Your task to perform on an android device: turn on improve location accuracy Image 0: 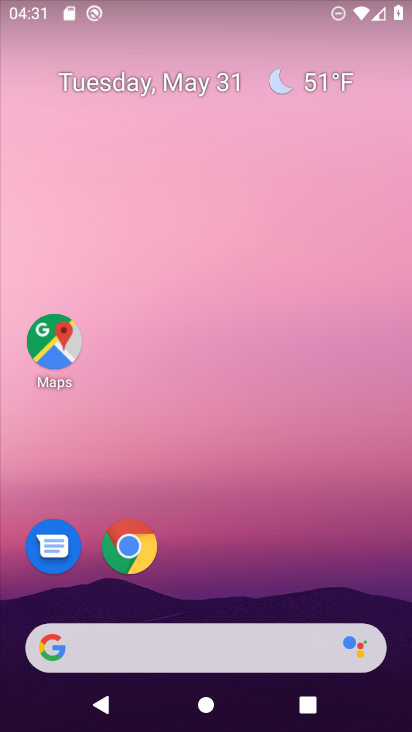
Step 0: drag from (182, 598) to (267, 229)
Your task to perform on an android device: turn on improve location accuracy Image 1: 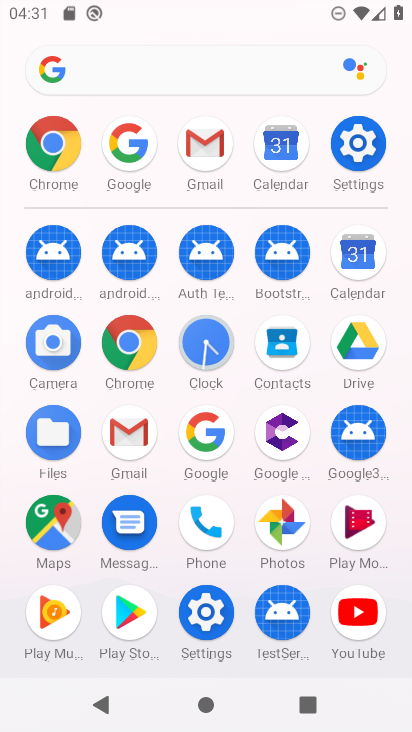
Step 1: click (354, 151)
Your task to perform on an android device: turn on improve location accuracy Image 2: 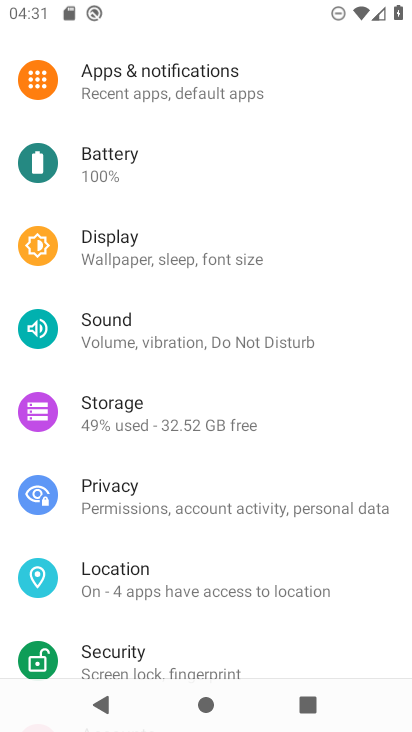
Step 2: click (159, 590)
Your task to perform on an android device: turn on improve location accuracy Image 3: 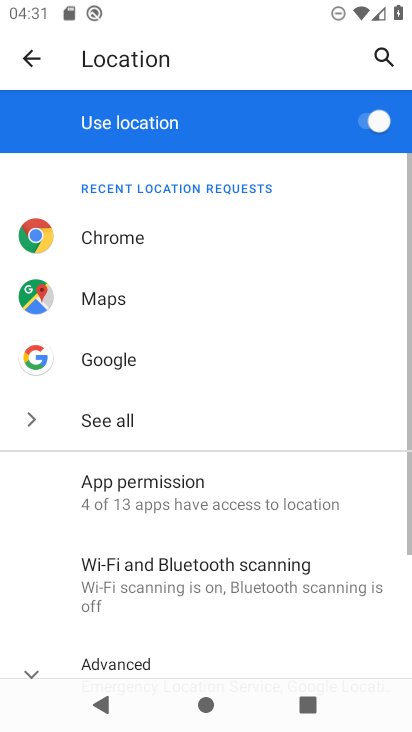
Step 3: drag from (145, 635) to (179, 376)
Your task to perform on an android device: turn on improve location accuracy Image 4: 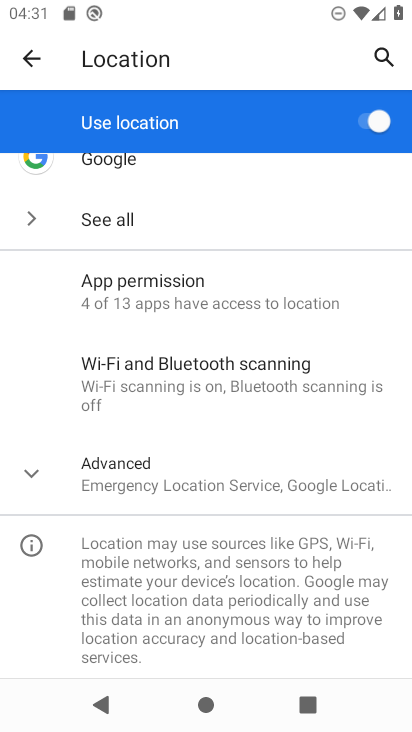
Step 4: click (110, 561)
Your task to perform on an android device: turn on improve location accuracy Image 5: 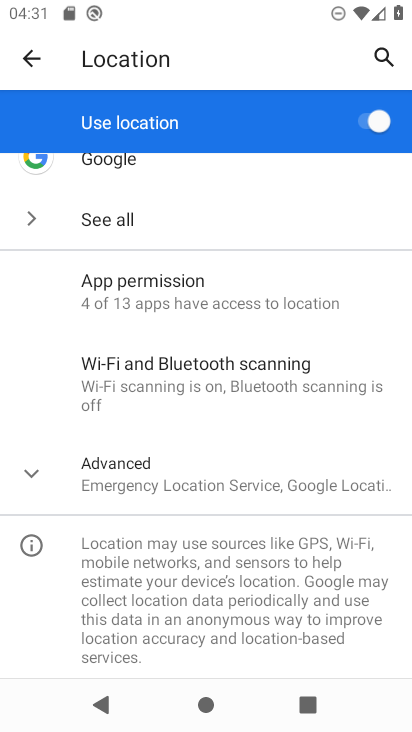
Step 5: click (106, 483)
Your task to perform on an android device: turn on improve location accuracy Image 6: 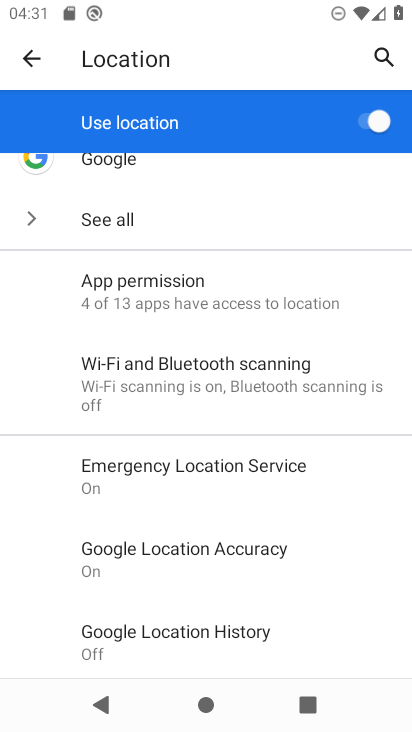
Step 6: click (164, 560)
Your task to perform on an android device: turn on improve location accuracy Image 7: 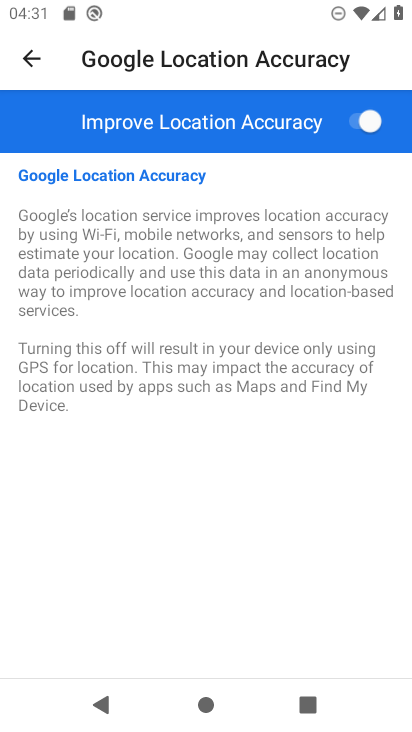
Step 7: task complete